Your task to perform on an android device: change the upload size in google photos Image 0: 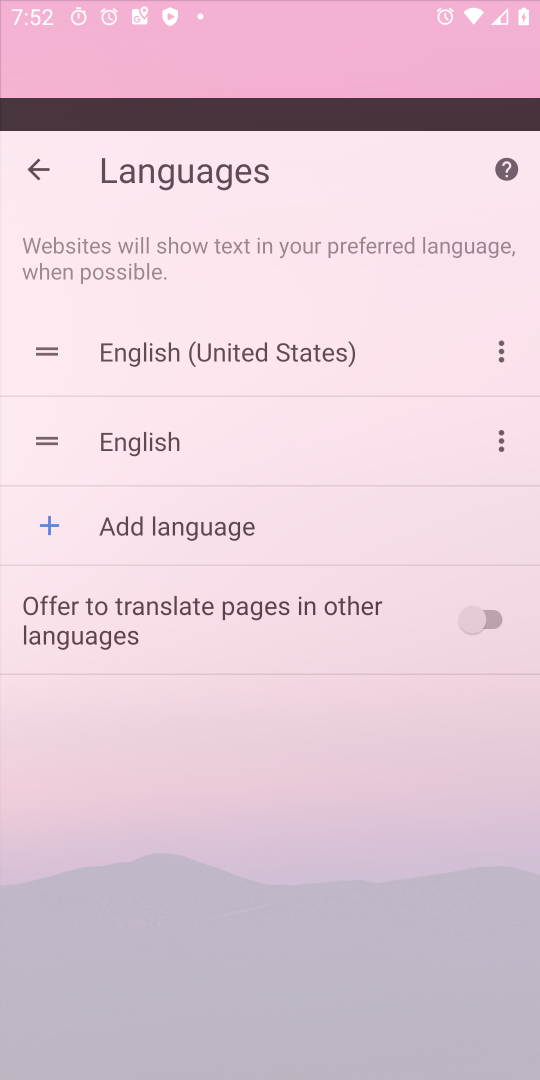
Step 0: press home button
Your task to perform on an android device: change the upload size in google photos Image 1: 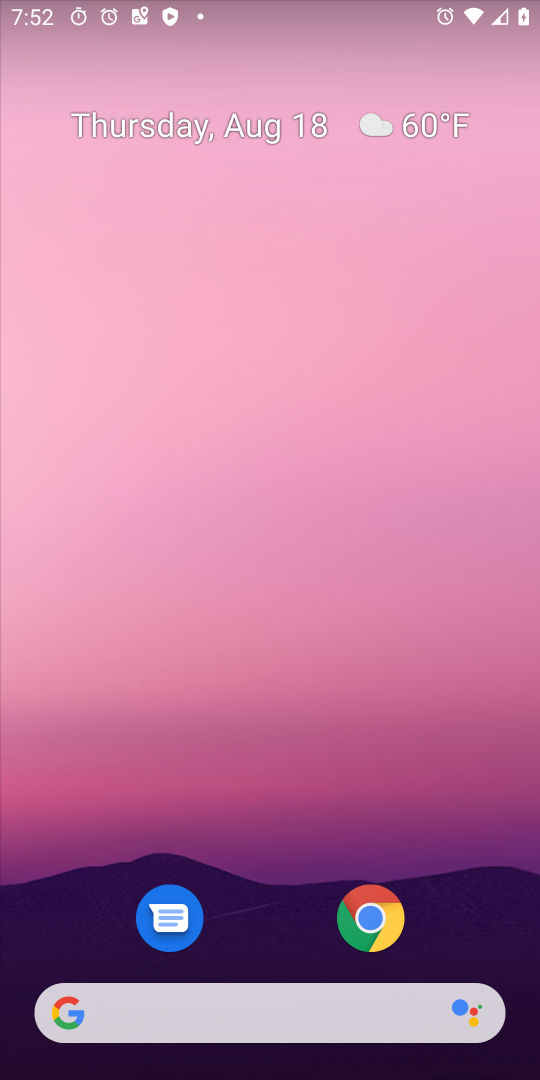
Step 1: drag from (325, 827) to (400, 0)
Your task to perform on an android device: change the upload size in google photos Image 2: 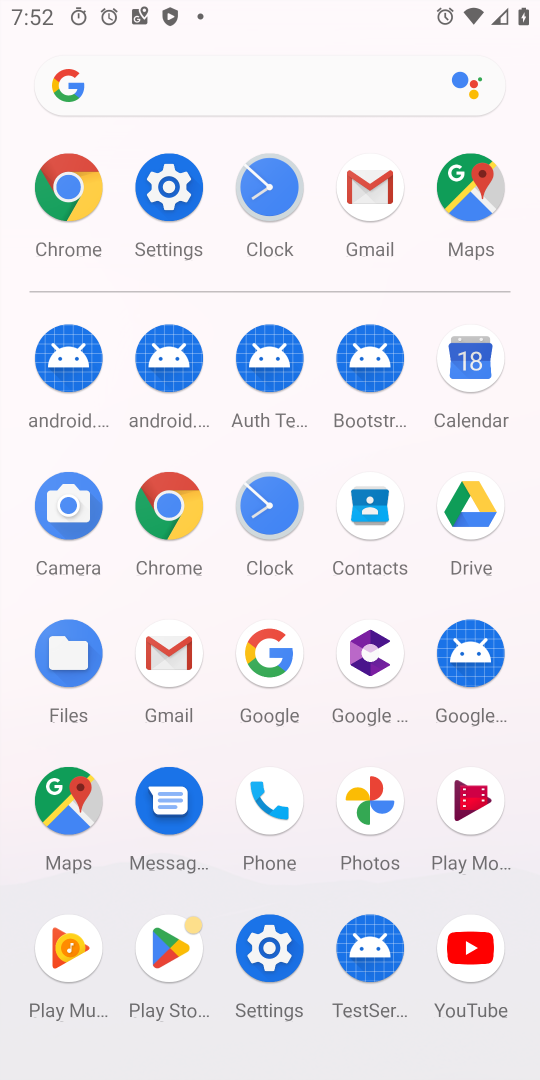
Step 2: click (364, 790)
Your task to perform on an android device: change the upload size in google photos Image 3: 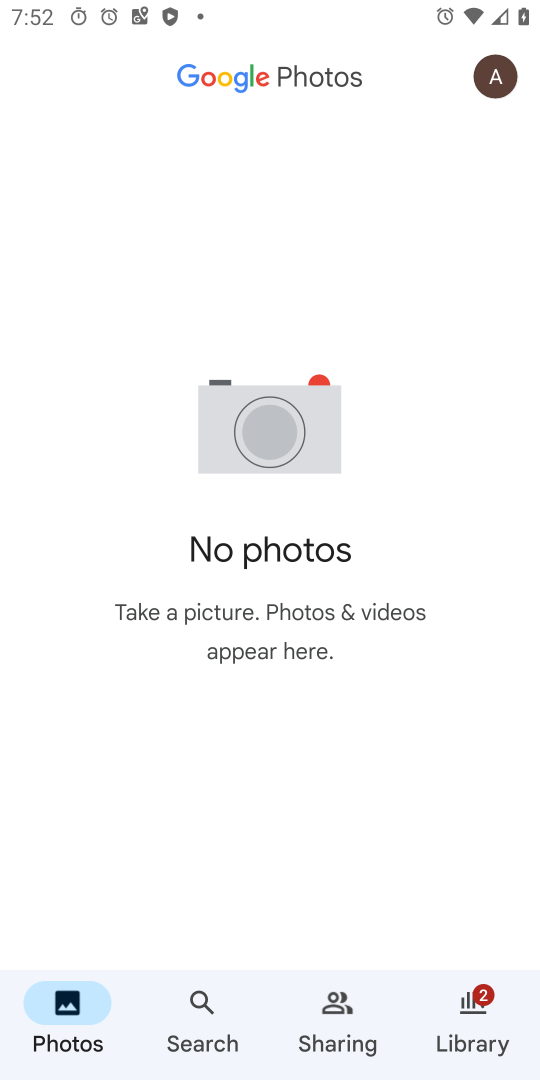
Step 3: click (487, 88)
Your task to perform on an android device: change the upload size in google photos Image 4: 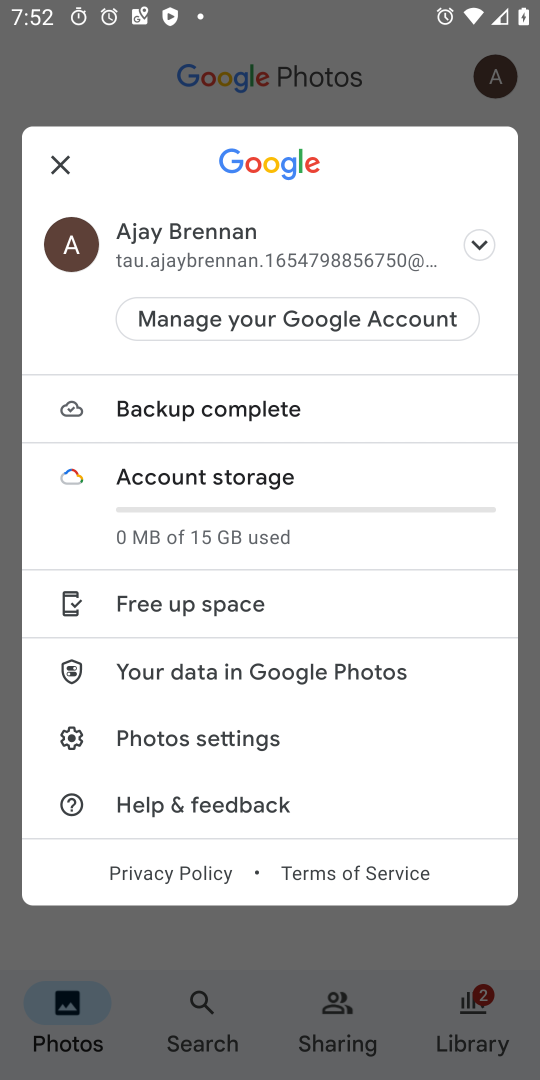
Step 4: click (186, 737)
Your task to perform on an android device: change the upload size in google photos Image 5: 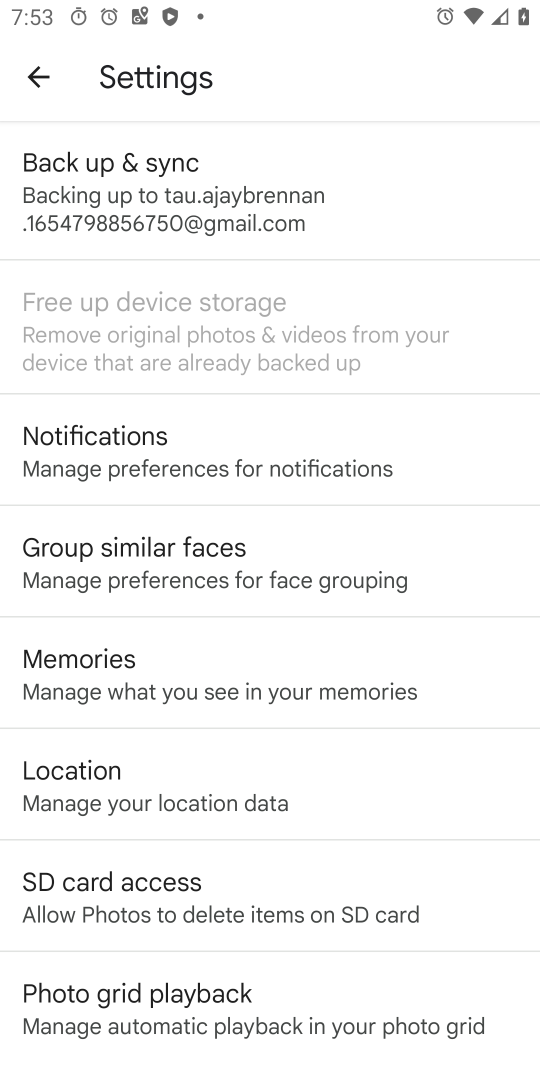
Step 5: click (115, 207)
Your task to perform on an android device: change the upload size in google photos Image 6: 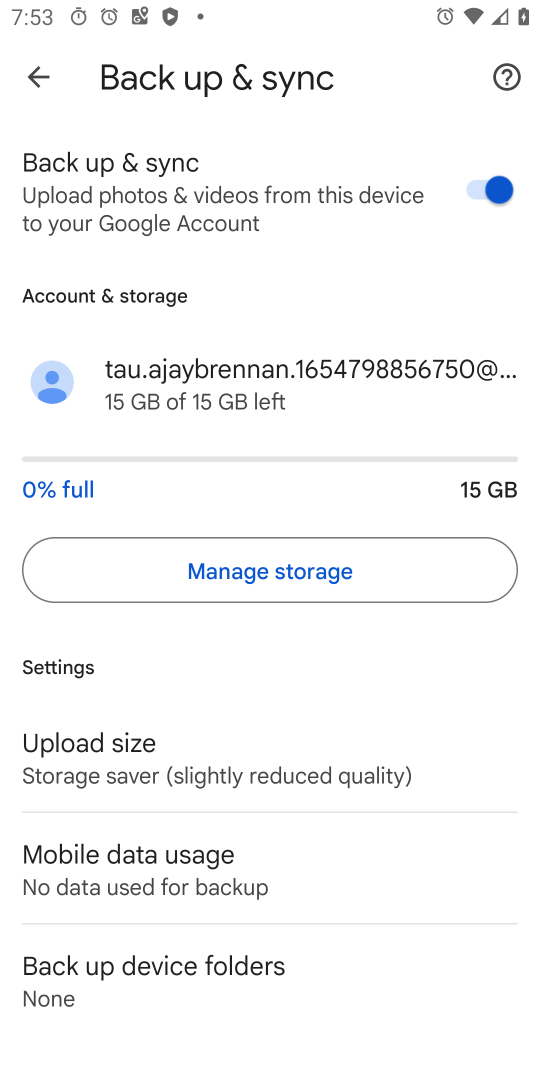
Step 6: click (95, 745)
Your task to perform on an android device: change the upload size in google photos Image 7: 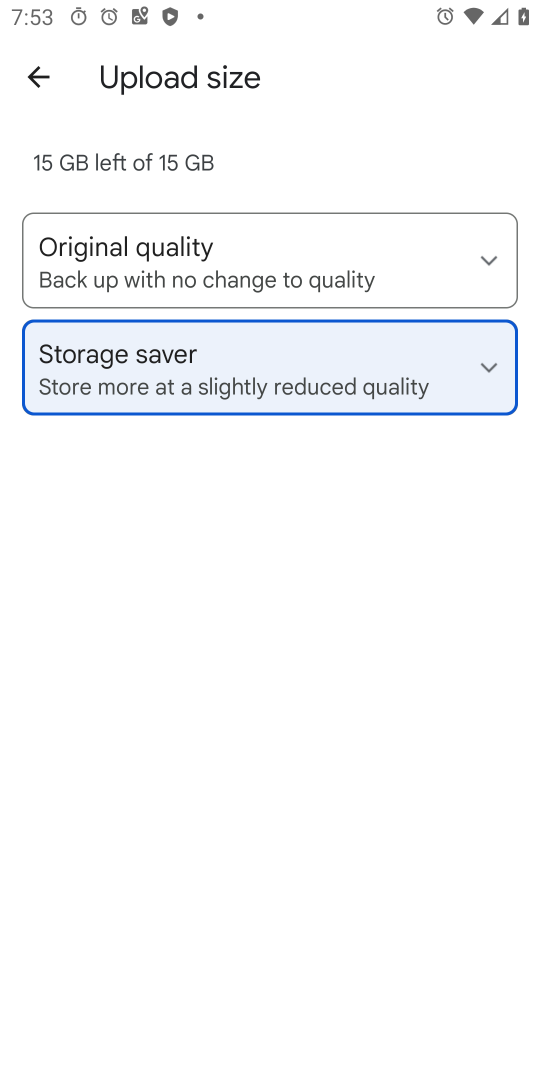
Step 7: click (96, 271)
Your task to perform on an android device: change the upload size in google photos Image 8: 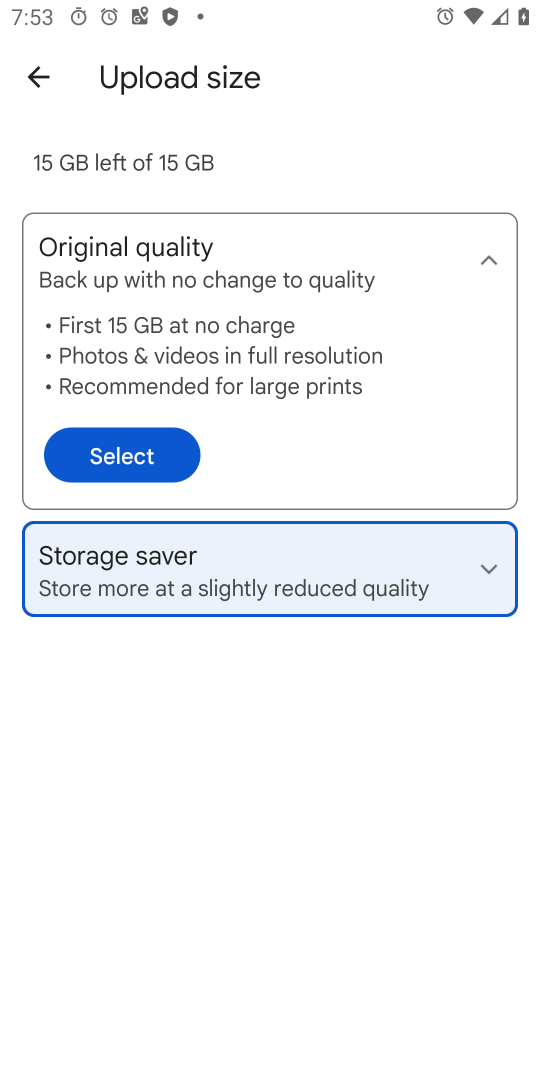
Step 8: click (133, 460)
Your task to perform on an android device: change the upload size in google photos Image 9: 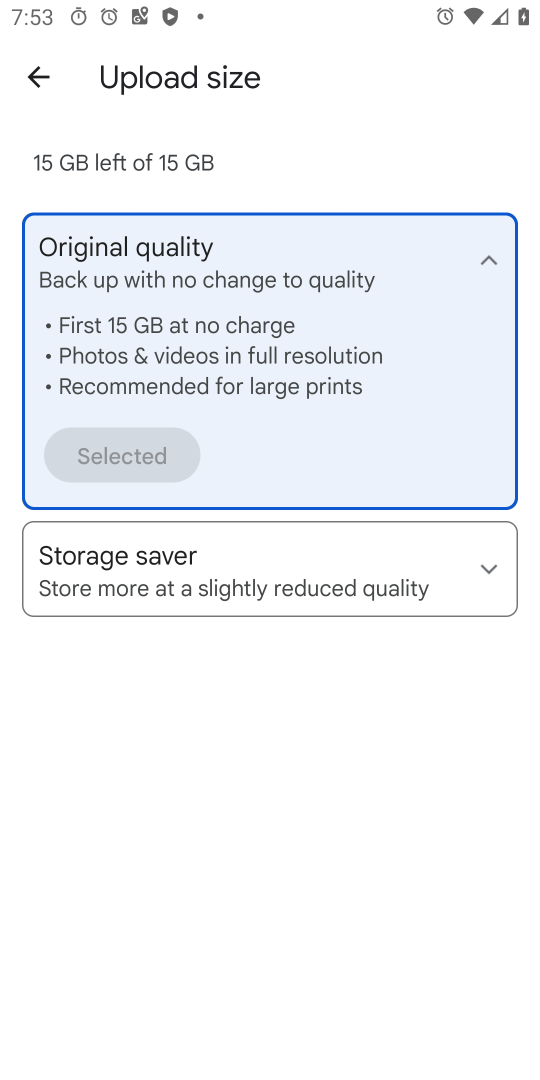
Step 9: task complete